Your task to perform on an android device: see tabs open on other devices in the chrome app Image 0: 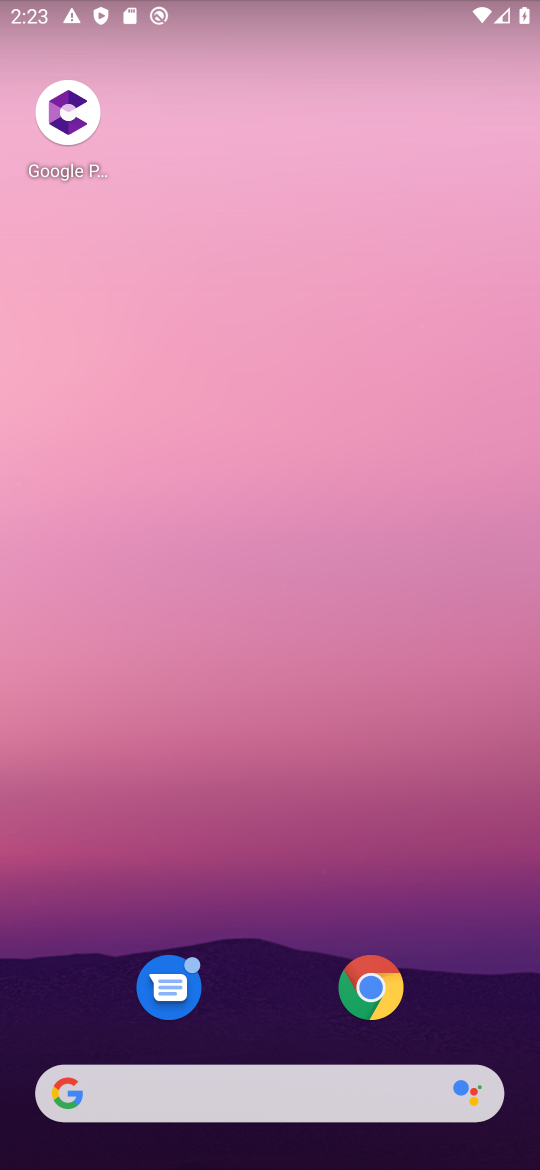
Step 0: click (368, 988)
Your task to perform on an android device: see tabs open on other devices in the chrome app Image 1: 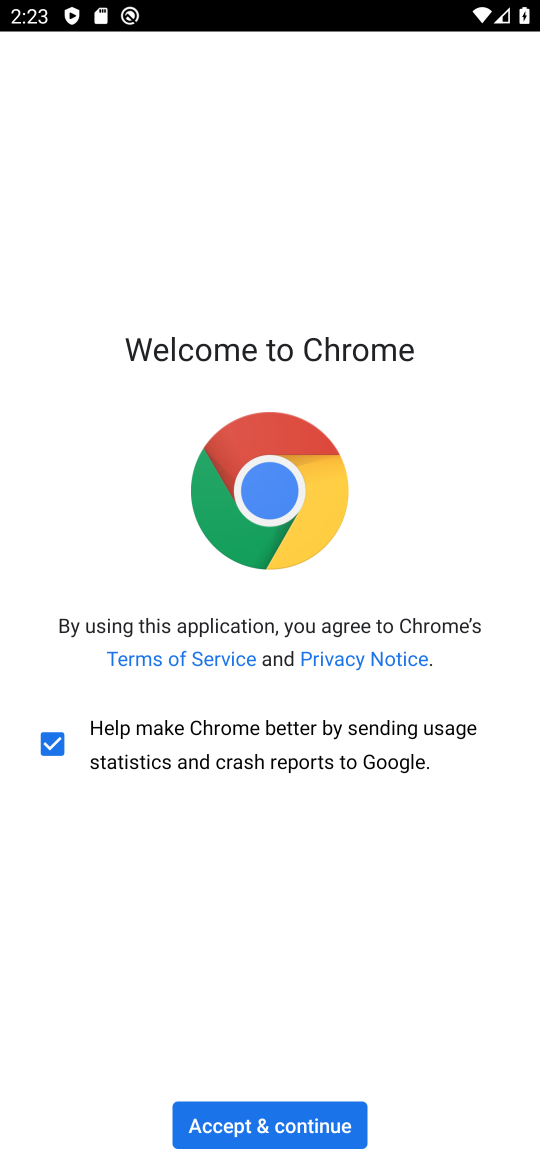
Step 1: click (176, 779)
Your task to perform on an android device: see tabs open on other devices in the chrome app Image 2: 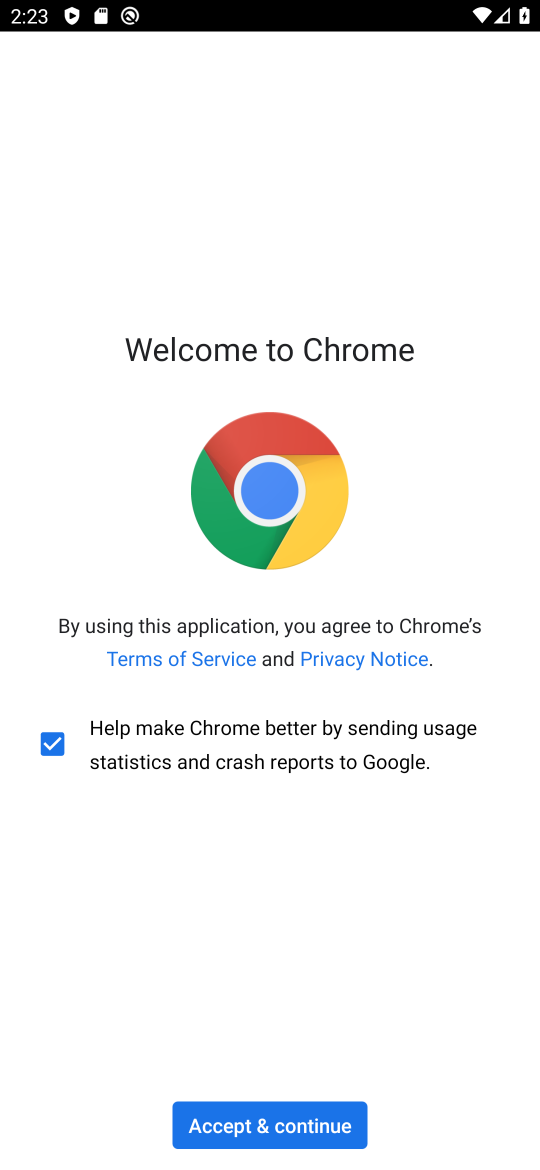
Step 2: click (239, 1119)
Your task to perform on an android device: see tabs open on other devices in the chrome app Image 3: 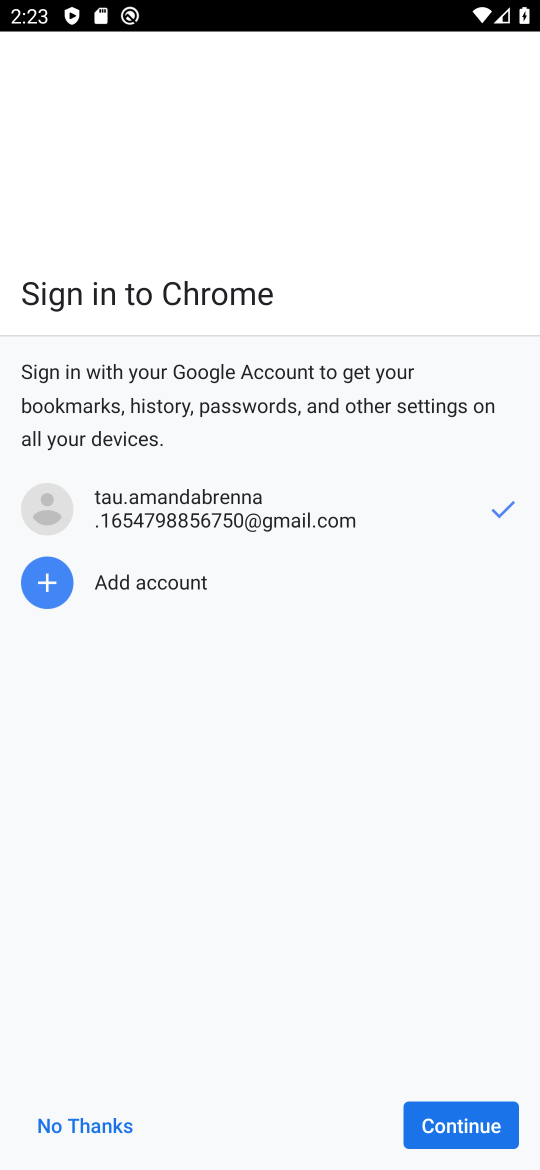
Step 3: click (448, 1111)
Your task to perform on an android device: see tabs open on other devices in the chrome app Image 4: 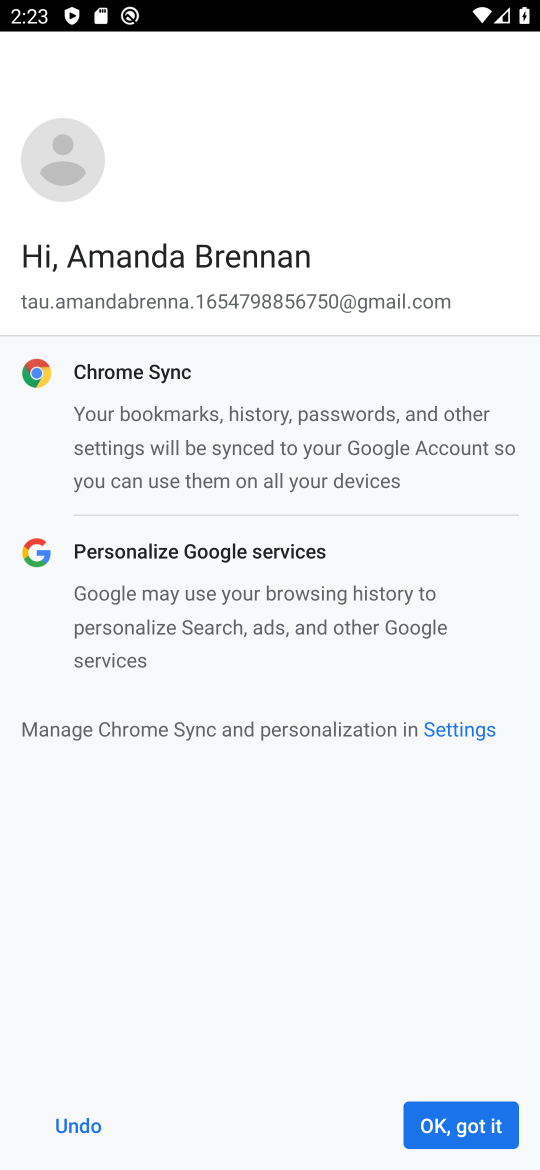
Step 4: click (458, 1128)
Your task to perform on an android device: see tabs open on other devices in the chrome app Image 5: 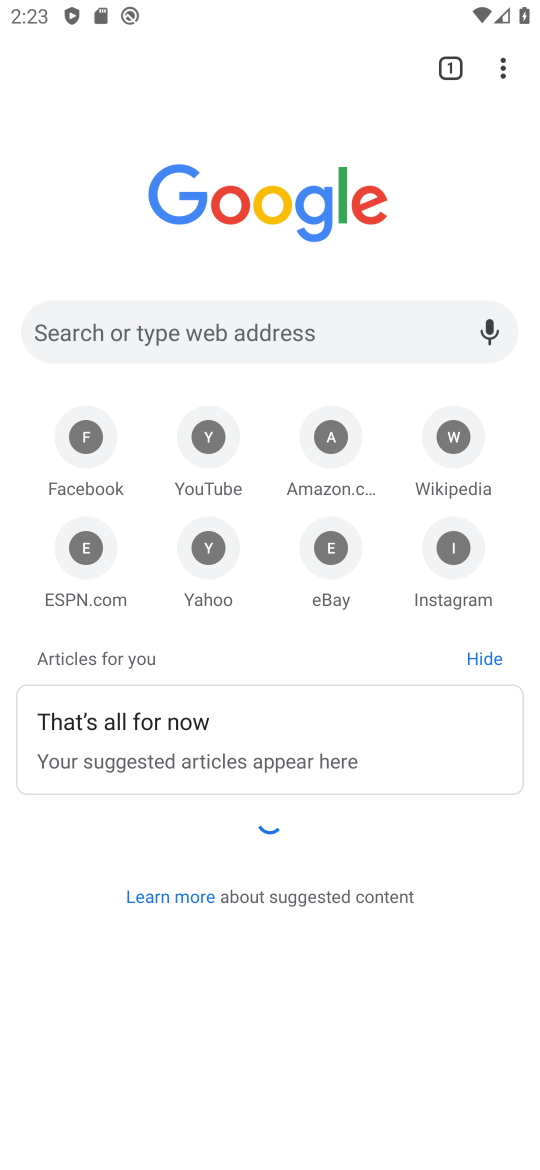
Step 5: click (509, 61)
Your task to perform on an android device: see tabs open on other devices in the chrome app Image 6: 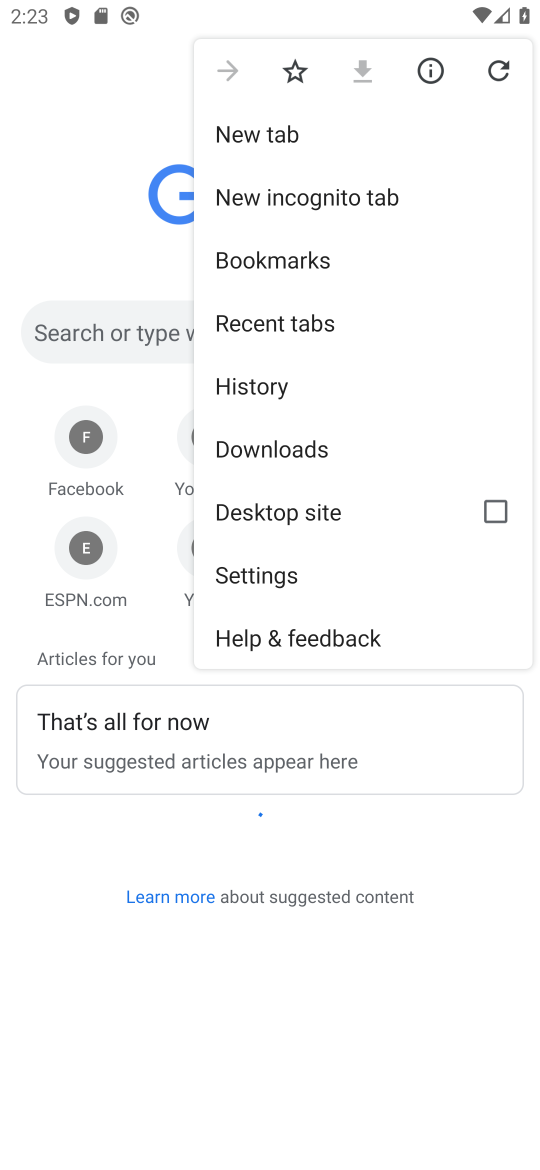
Step 6: click (268, 319)
Your task to perform on an android device: see tabs open on other devices in the chrome app Image 7: 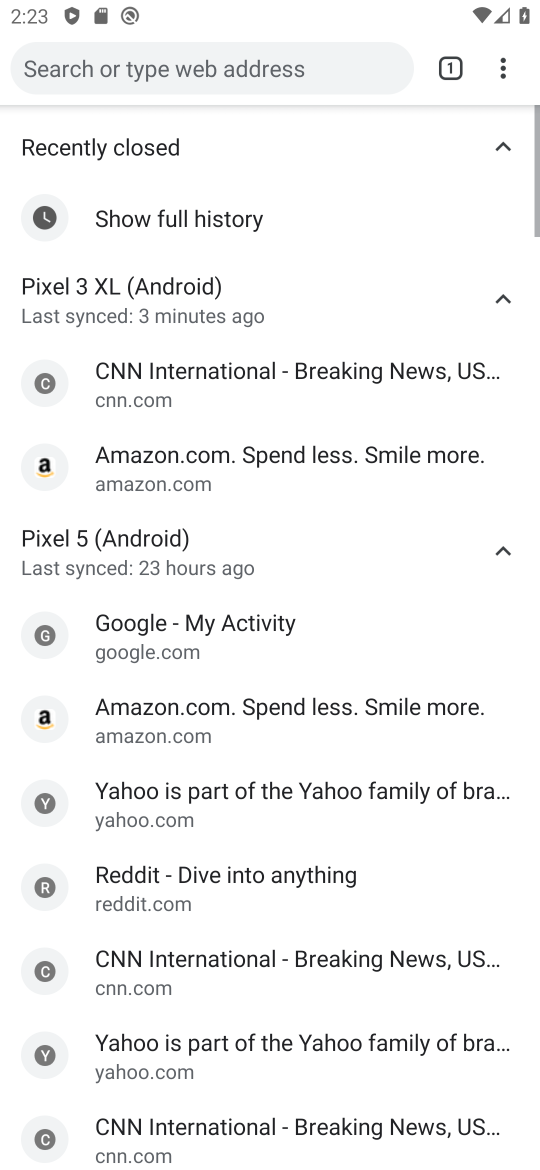
Step 7: task complete